Your task to perform on an android device: Open Google Chrome Image 0: 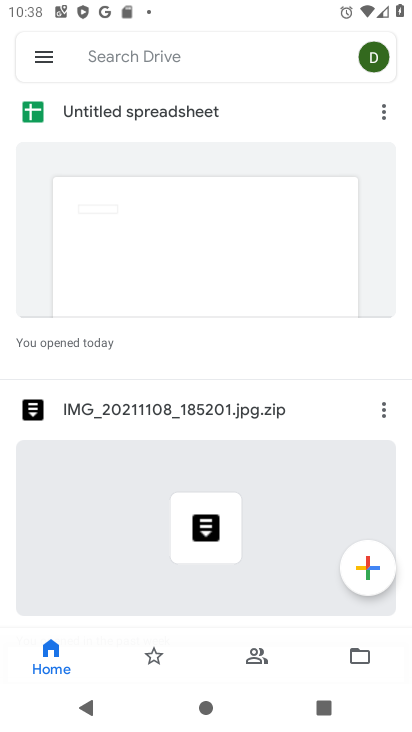
Step 0: press home button
Your task to perform on an android device: Open Google Chrome Image 1: 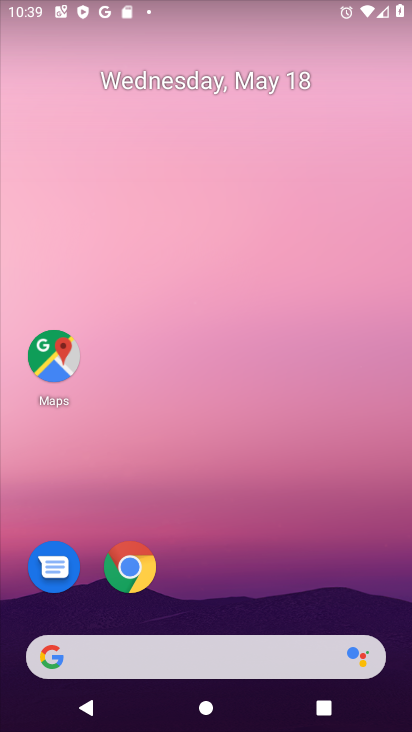
Step 1: click (132, 577)
Your task to perform on an android device: Open Google Chrome Image 2: 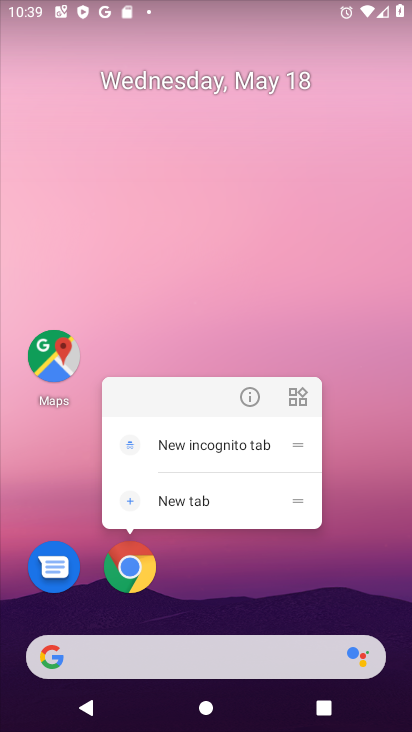
Step 2: click (135, 572)
Your task to perform on an android device: Open Google Chrome Image 3: 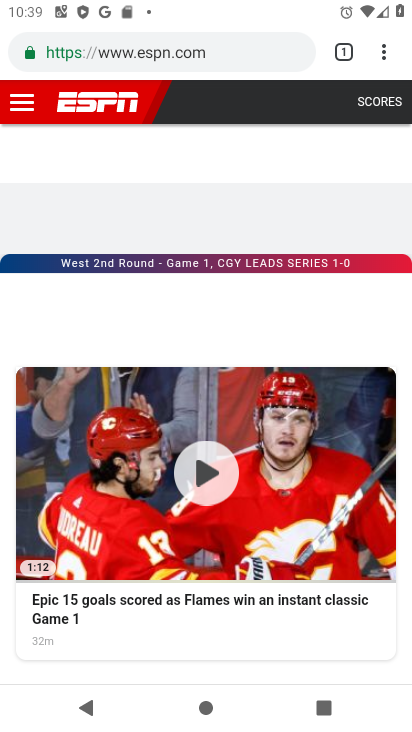
Step 3: task complete